Your task to perform on an android device: move an email to a new category in the gmail app Image 0: 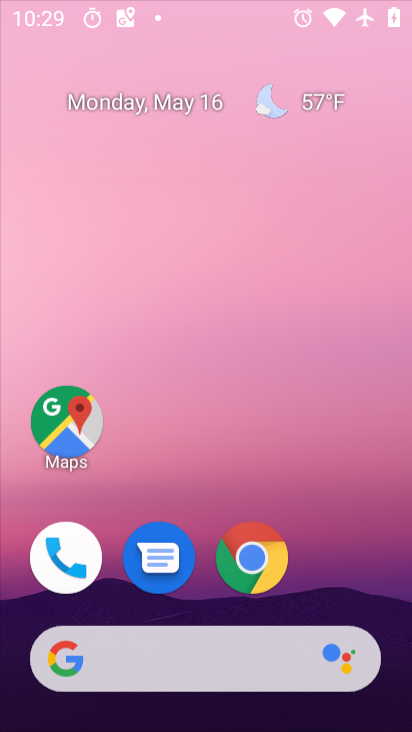
Step 0: click (411, 25)
Your task to perform on an android device: move an email to a new category in the gmail app Image 1: 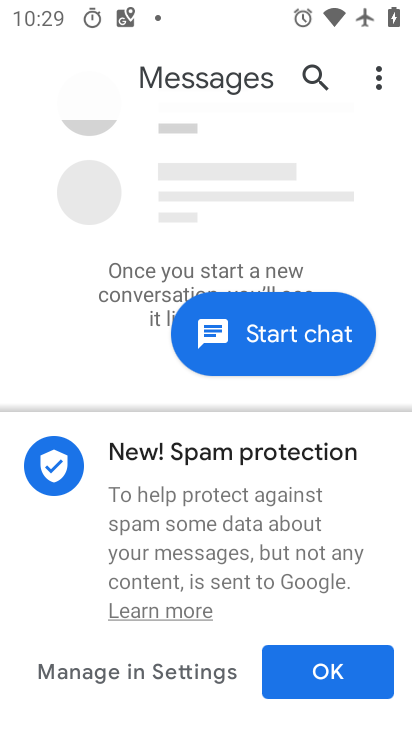
Step 1: press home button
Your task to perform on an android device: move an email to a new category in the gmail app Image 2: 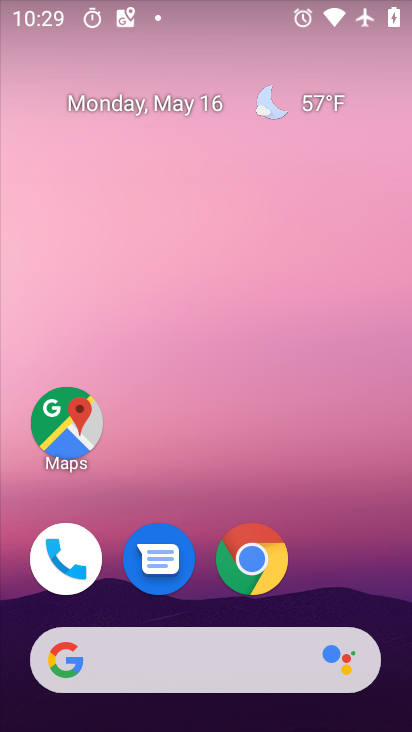
Step 2: drag from (193, 490) to (240, 76)
Your task to perform on an android device: move an email to a new category in the gmail app Image 3: 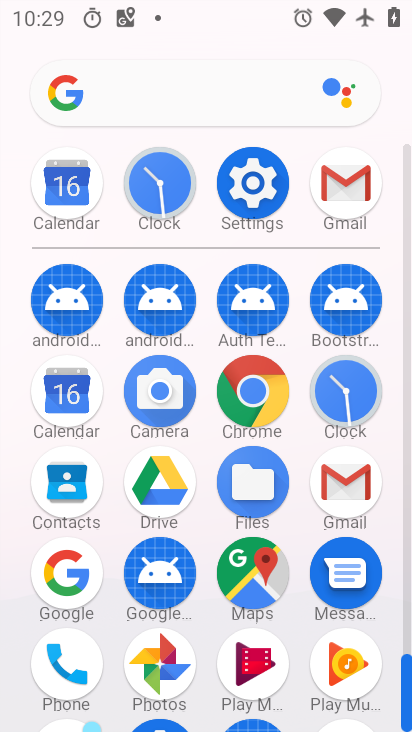
Step 3: click (334, 179)
Your task to perform on an android device: move an email to a new category in the gmail app Image 4: 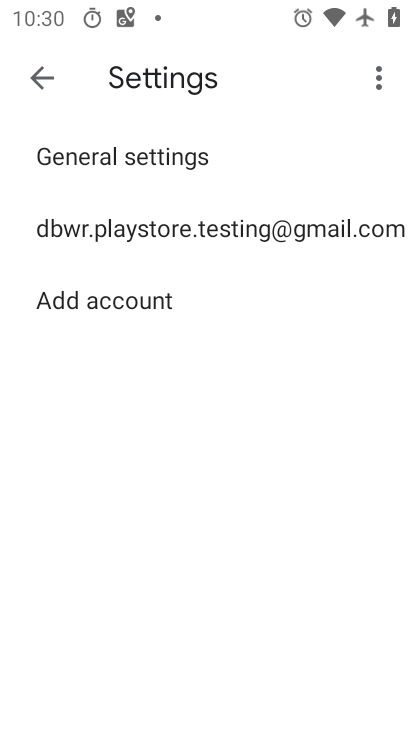
Step 4: click (39, 88)
Your task to perform on an android device: move an email to a new category in the gmail app Image 5: 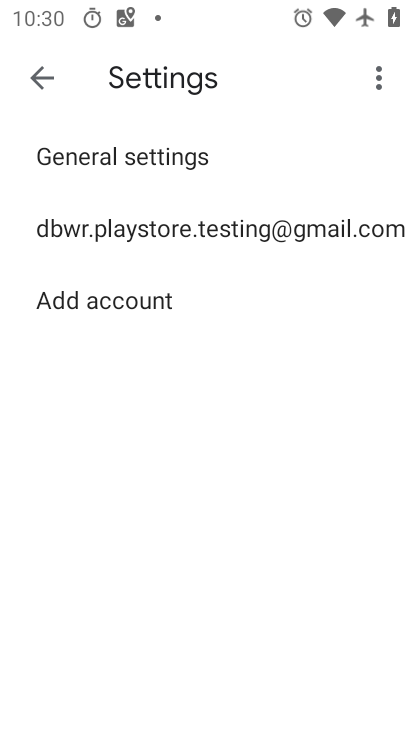
Step 5: click (39, 88)
Your task to perform on an android device: move an email to a new category in the gmail app Image 6: 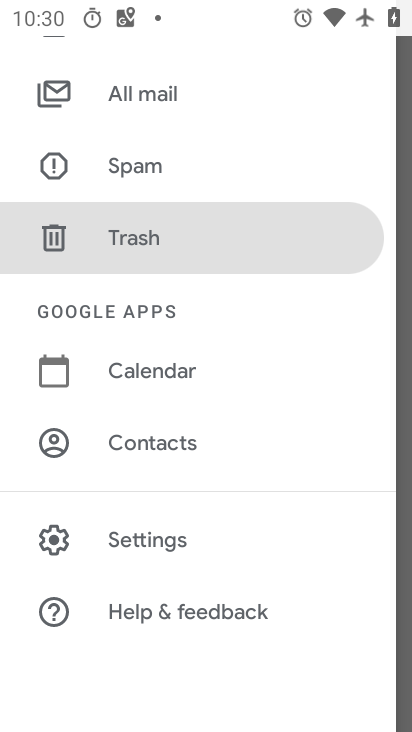
Step 6: drag from (171, 147) to (248, 637)
Your task to perform on an android device: move an email to a new category in the gmail app Image 7: 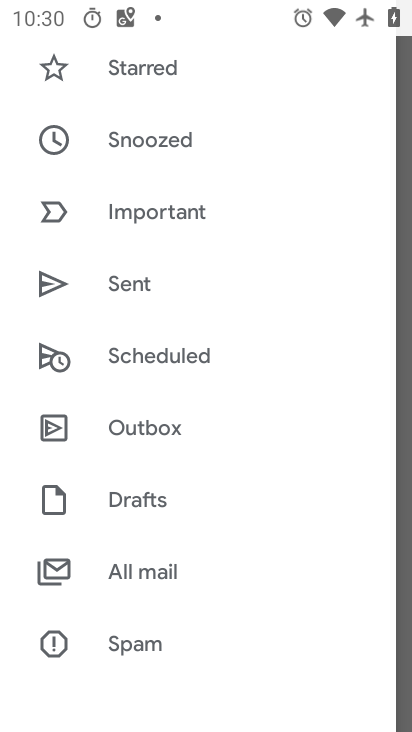
Step 7: drag from (158, 97) to (195, 598)
Your task to perform on an android device: move an email to a new category in the gmail app Image 8: 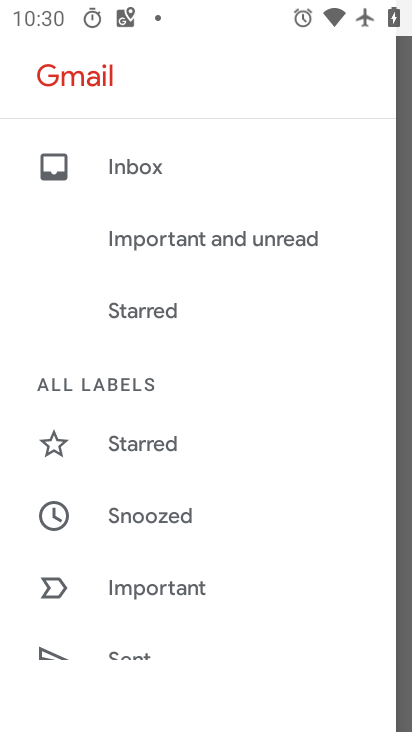
Step 8: drag from (324, 352) to (276, 97)
Your task to perform on an android device: move an email to a new category in the gmail app Image 9: 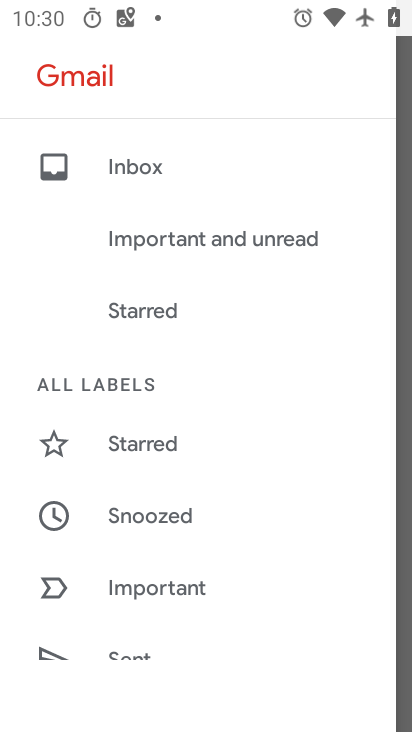
Step 9: drag from (192, 630) to (324, 206)
Your task to perform on an android device: move an email to a new category in the gmail app Image 10: 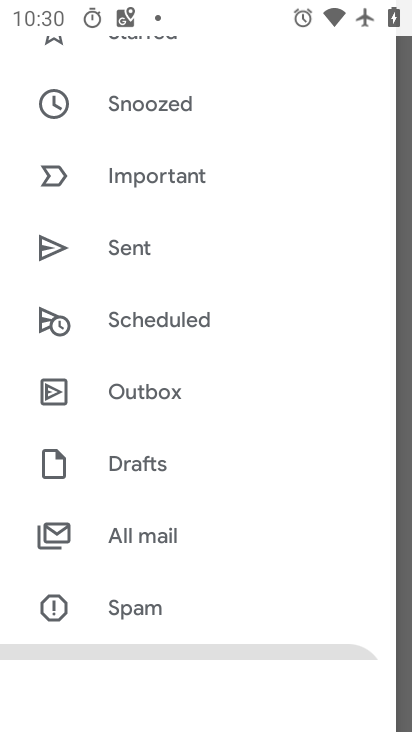
Step 10: click (148, 528)
Your task to perform on an android device: move an email to a new category in the gmail app Image 11: 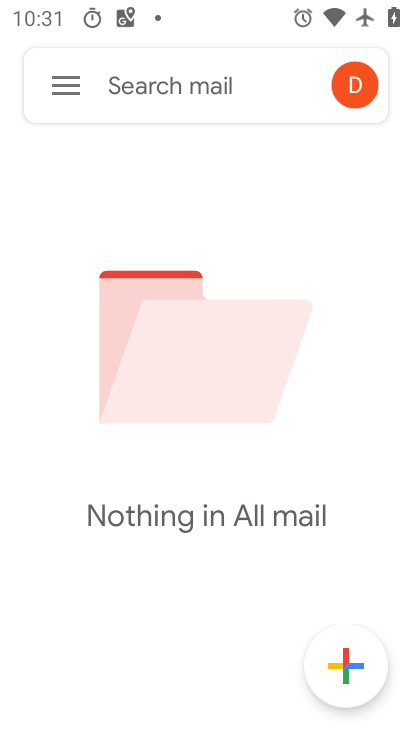
Step 11: task complete